Your task to perform on an android device: open a new tab in the chrome app Image 0: 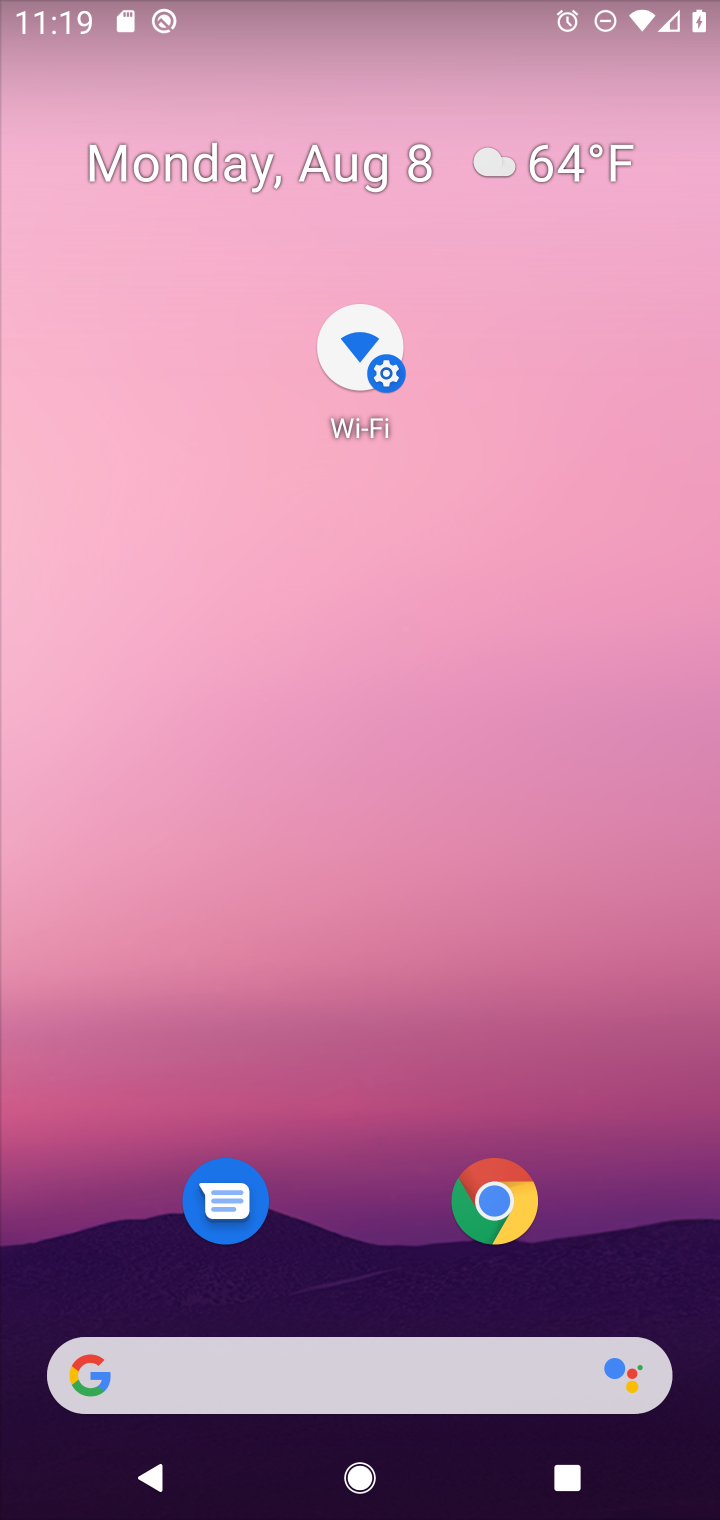
Step 0: press home button
Your task to perform on an android device: open a new tab in the chrome app Image 1: 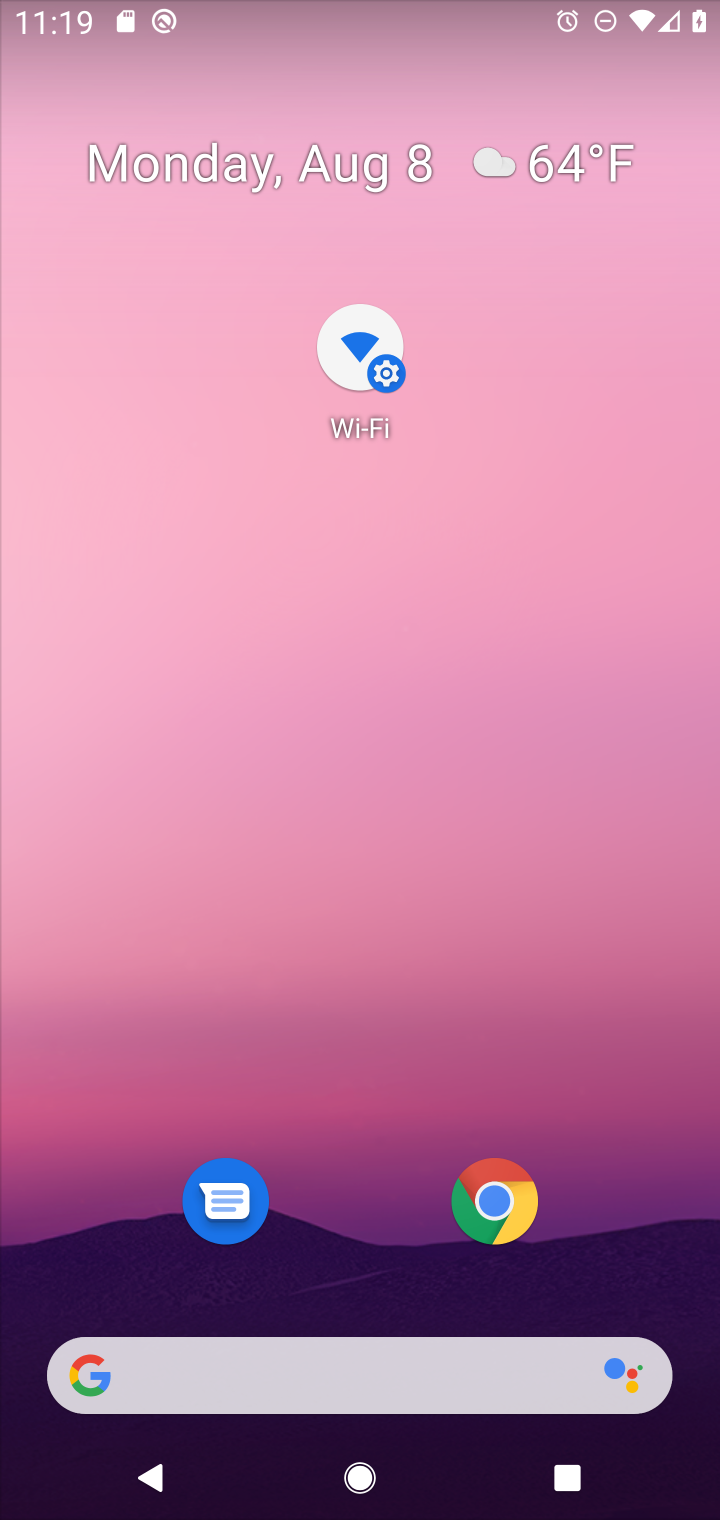
Step 1: drag from (644, 1092) to (684, 243)
Your task to perform on an android device: open a new tab in the chrome app Image 2: 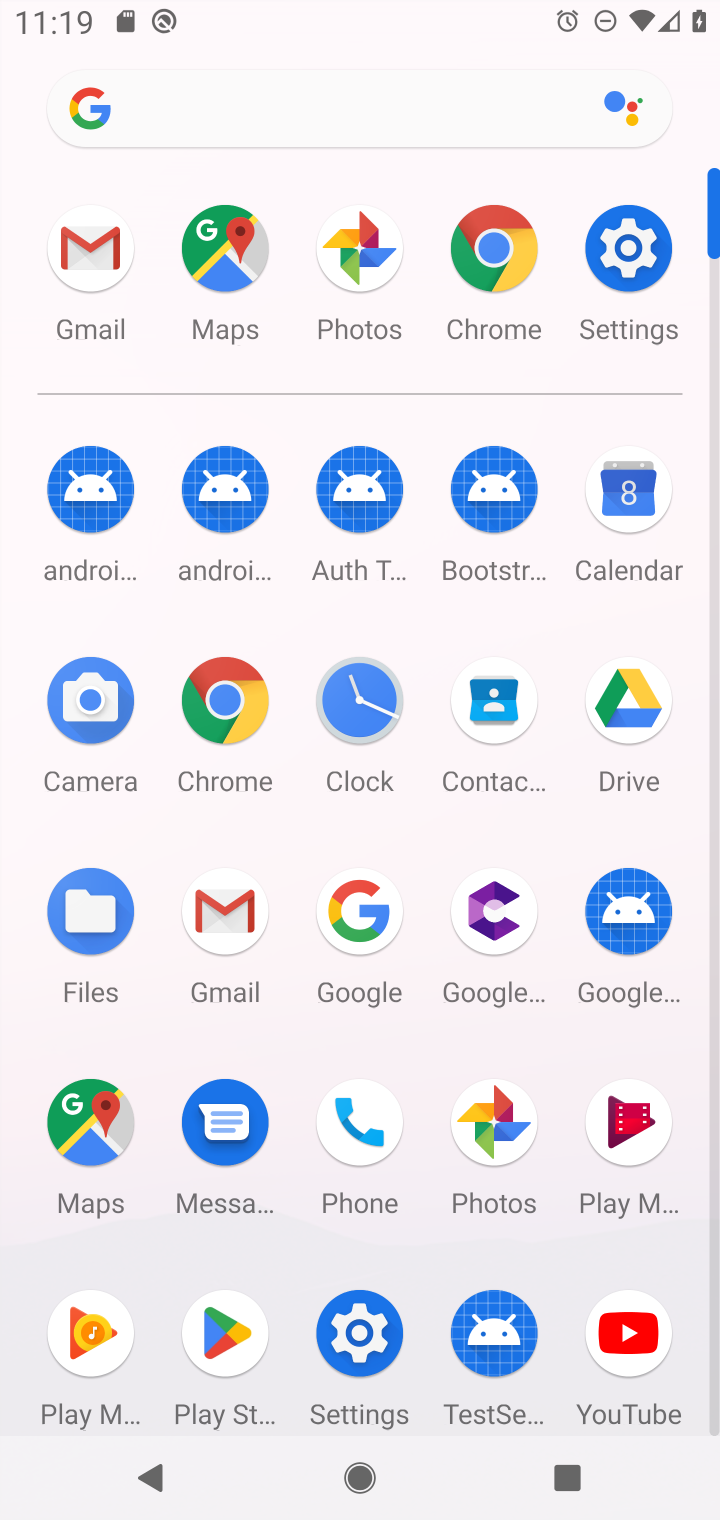
Step 2: click (224, 690)
Your task to perform on an android device: open a new tab in the chrome app Image 3: 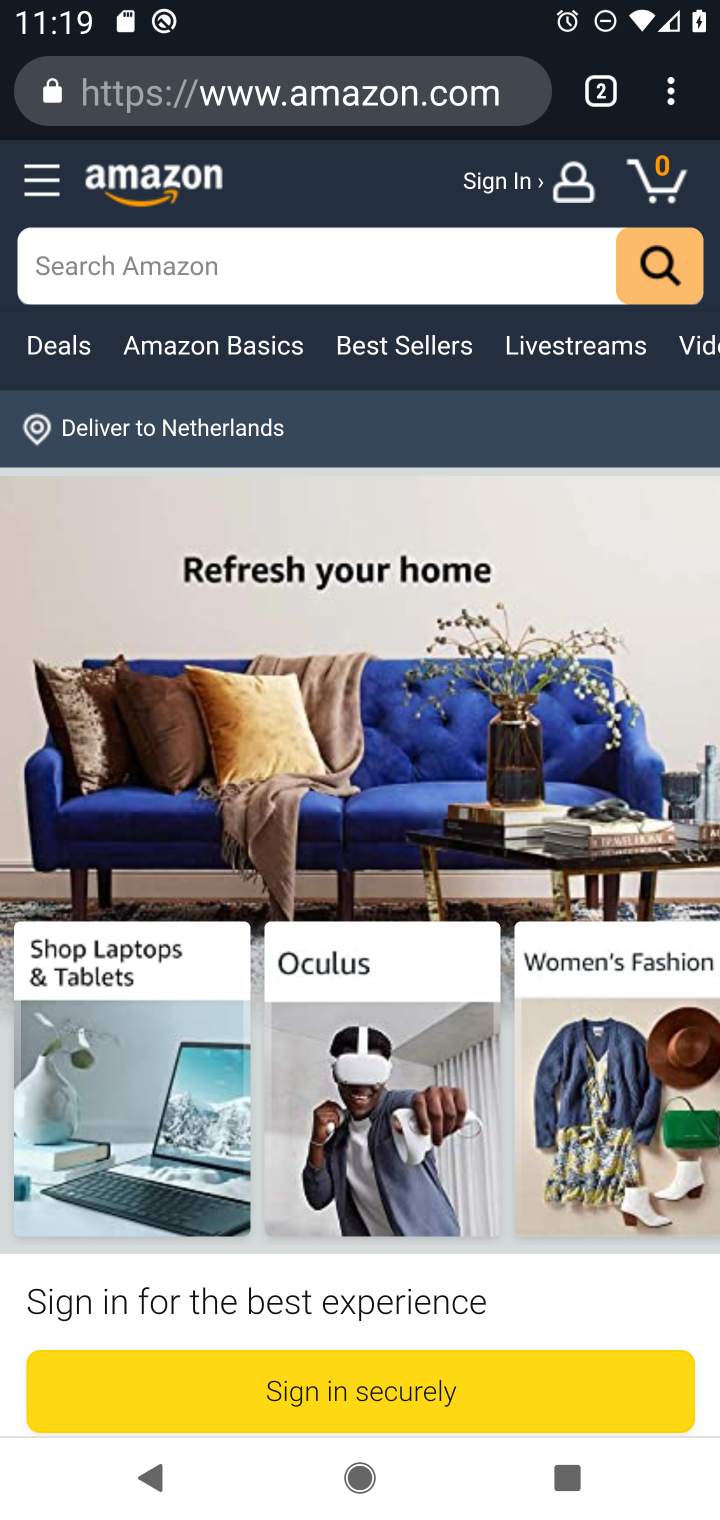
Step 3: click (673, 96)
Your task to perform on an android device: open a new tab in the chrome app Image 4: 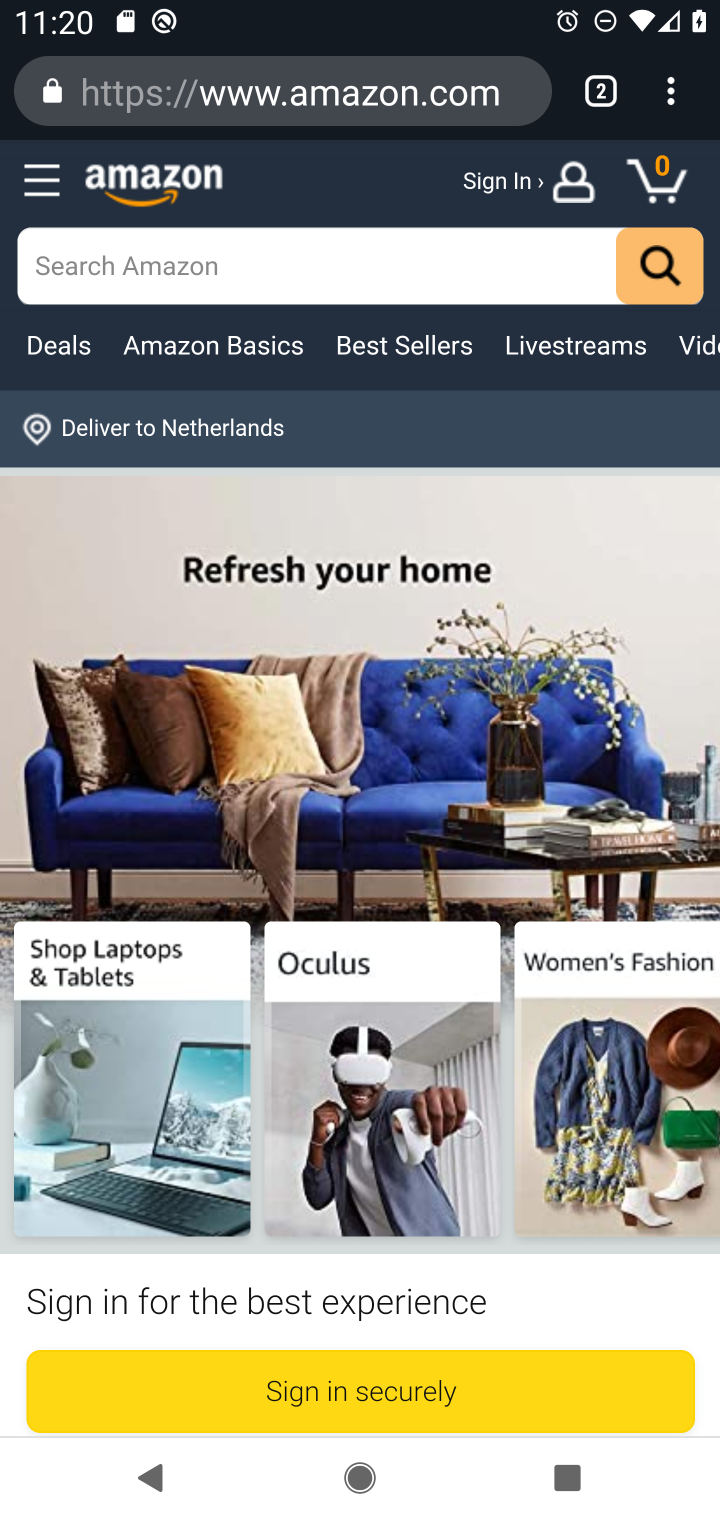
Step 4: click (670, 113)
Your task to perform on an android device: open a new tab in the chrome app Image 5: 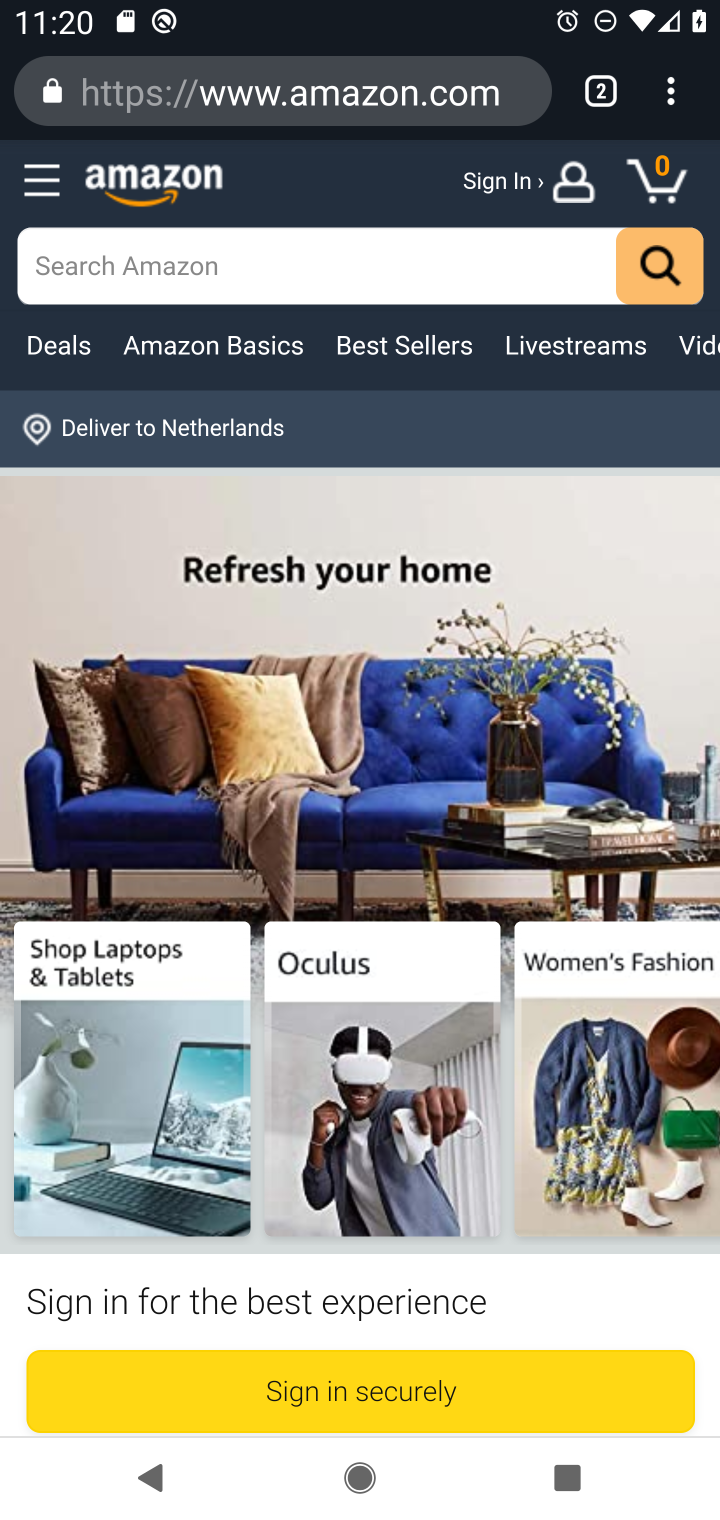
Step 5: click (670, 99)
Your task to perform on an android device: open a new tab in the chrome app Image 6: 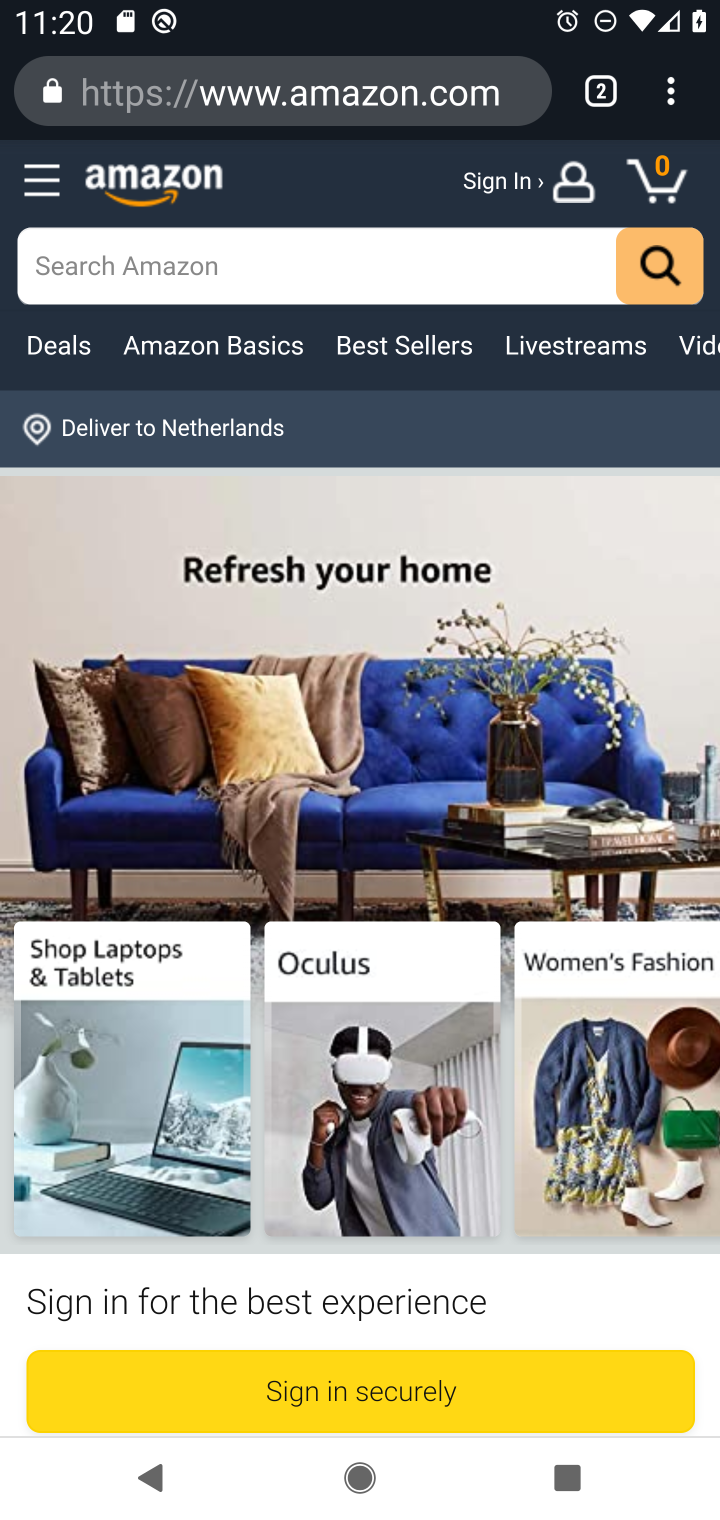
Step 6: click (673, 92)
Your task to perform on an android device: open a new tab in the chrome app Image 7: 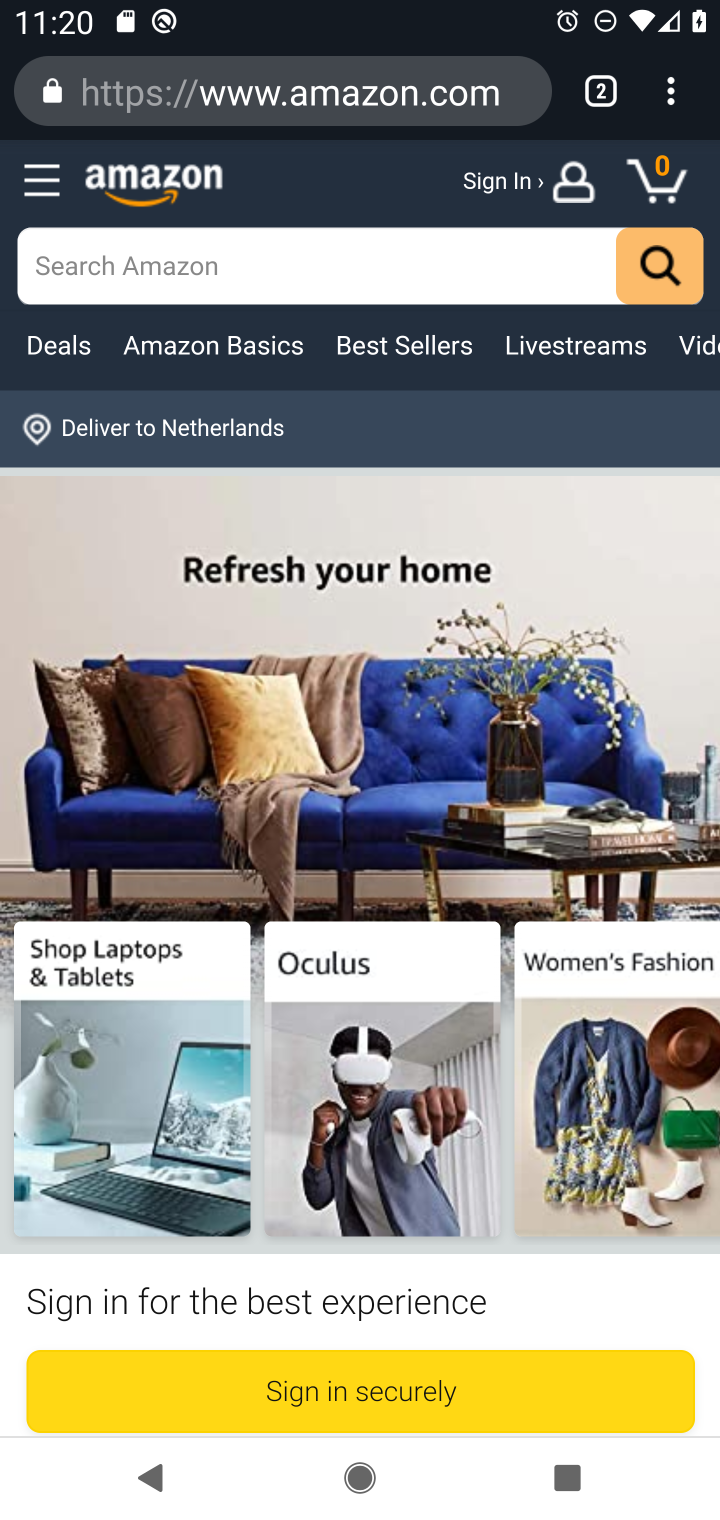
Step 7: task complete